Your task to perform on an android device: Search for Italian restaurants on Maps Image 0: 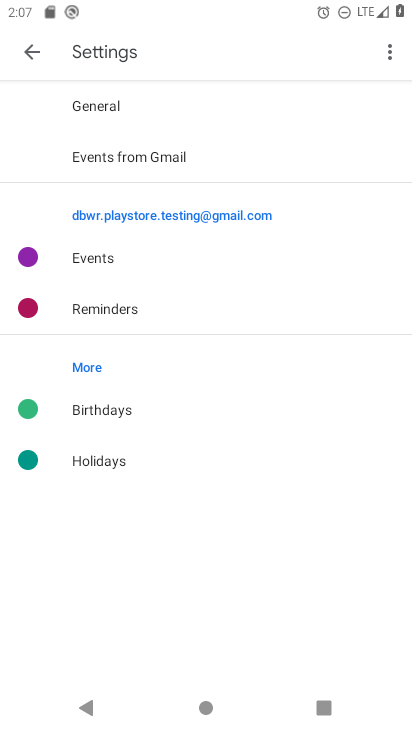
Step 0: drag from (399, 726) to (328, 345)
Your task to perform on an android device: Search for Italian restaurants on Maps Image 1: 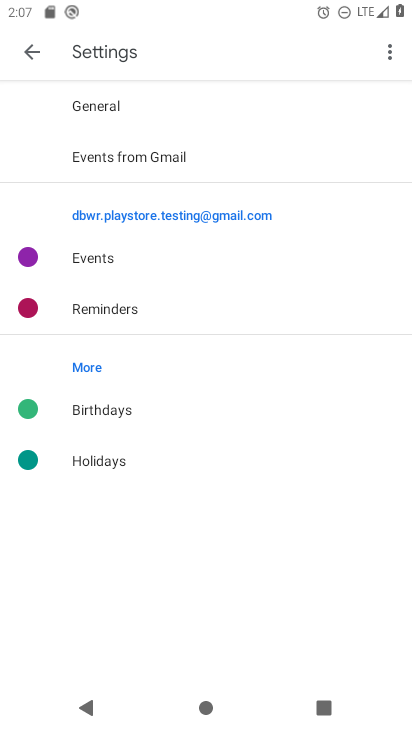
Step 1: drag from (282, 551) to (307, 72)
Your task to perform on an android device: Search for Italian restaurants on Maps Image 2: 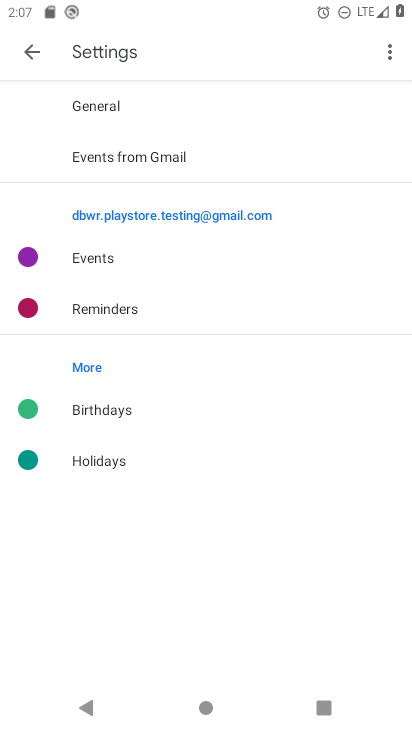
Step 2: press home button
Your task to perform on an android device: Search for Italian restaurants on Maps Image 3: 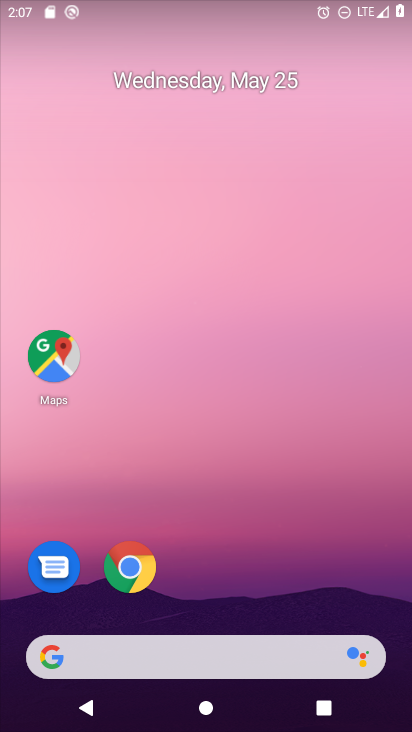
Step 3: click (76, 350)
Your task to perform on an android device: Search for Italian restaurants on Maps Image 4: 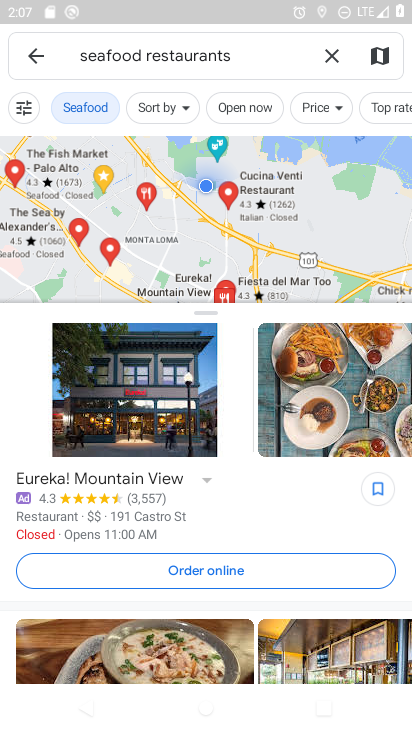
Step 4: click (332, 50)
Your task to perform on an android device: Search for Italian restaurants on Maps Image 5: 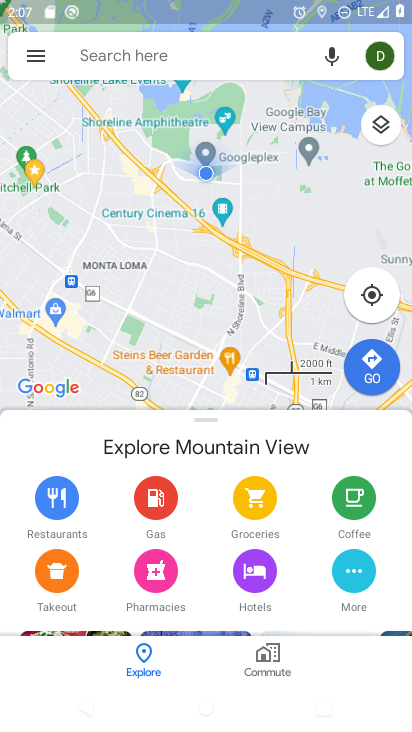
Step 5: click (137, 54)
Your task to perform on an android device: Search for Italian restaurants on Maps Image 6: 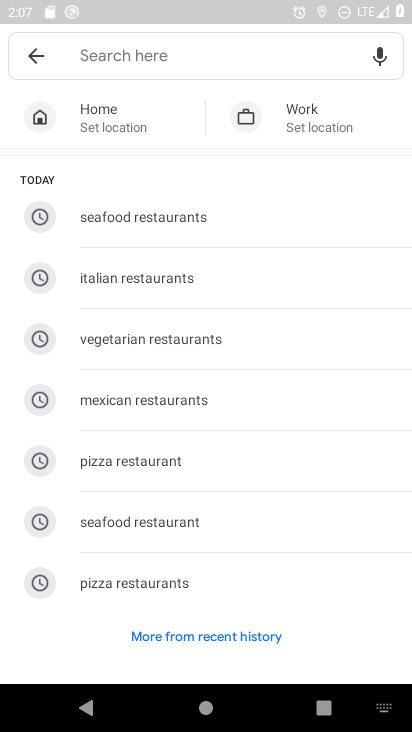
Step 6: type "Italian restaurants"
Your task to perform on an android device: Search for Italian restaurants on Maps Image 7: 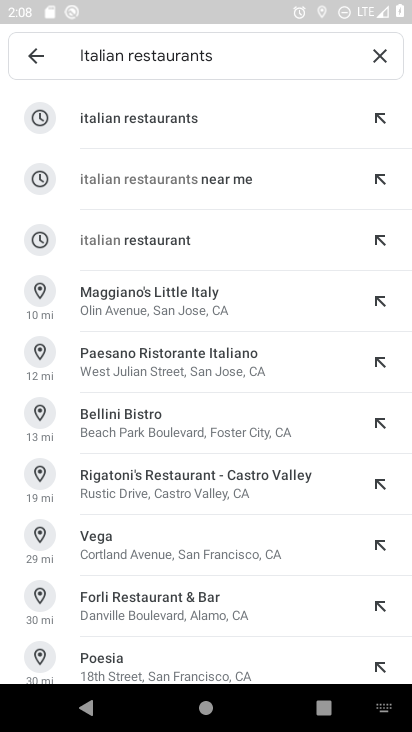
Step 7: click (138, 115)
Your task to perform on an android device: Search for Italian restaurants on Maps Image 8: 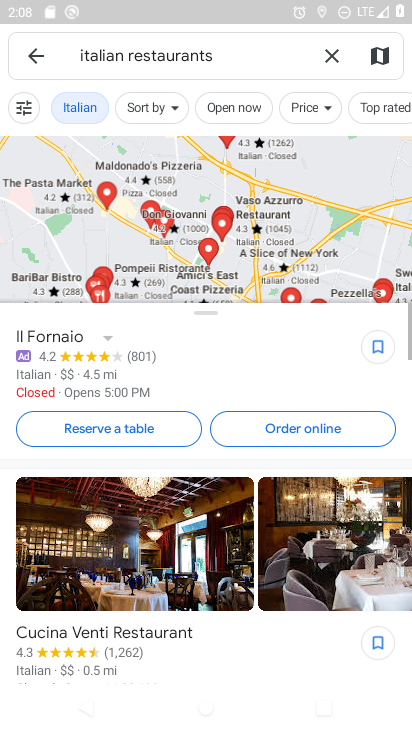
Step 8: task complete